Your task to perform on an android device: Add "asus zenbook" to the cart on amazon Image 0: 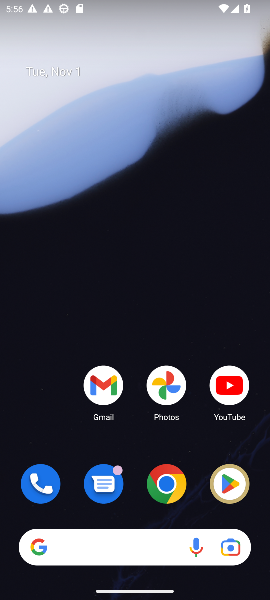
Step 0: click (170, 485)
Your task to perform on an android device: Add "asus zenbook" to the cart on amazon Image 1: 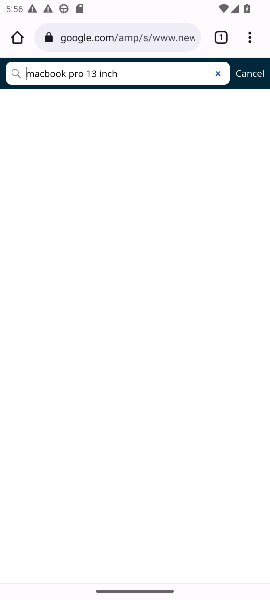
Step 1: click (126, 33)
Your task to perform on an android device: Add "asus zenbook" to the cart on amazon Image 2: 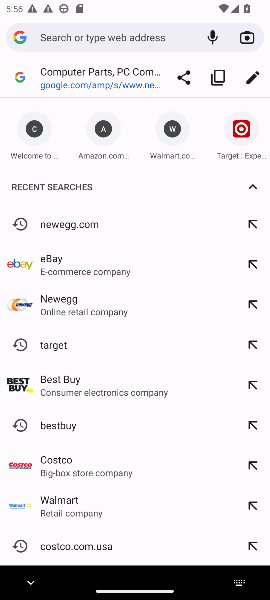
Step 2: type "amazon"
Your task to perform on an android device: Add "asus zenbook" to the cart on amazon Image 3: 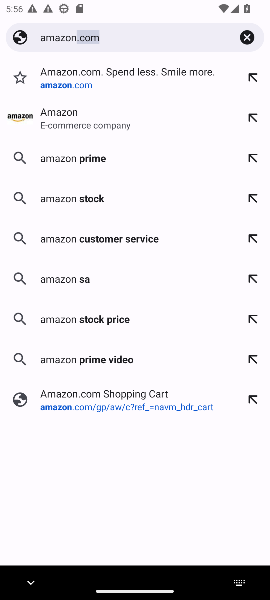
Step 3: click (88, 80)
Your task to perform on an android device: Add "asus zenbook" to the cart on amazon Image 4: 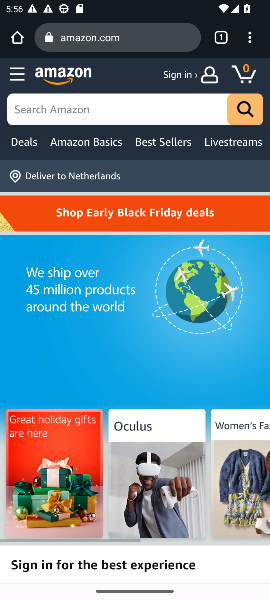
Step 4: click (98, 108)
Your task to perform on an android device: Add "asus zenbook" to the cart on amazon Image 5: 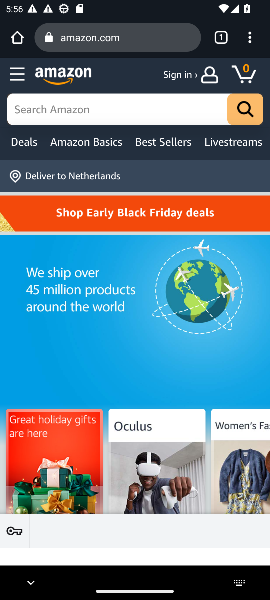
Step 5: click (135, 101)
Your task to perform on an android device: Add "asus zenbook" to the cart on amazon Image 6: 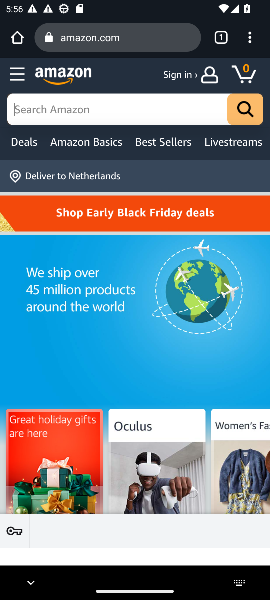
Step 6: type "asus zenbook"
Your task to perform on an android device: Add "asus zenbook" to the cart on amazon Image 7: 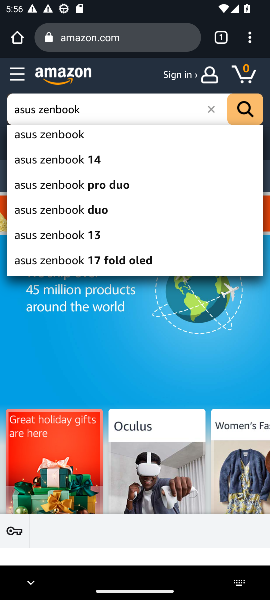
Step 7: click (50, 133)
Your task to perform on an android device: Add "asus zenbook" to the cart on amazon Image 8: 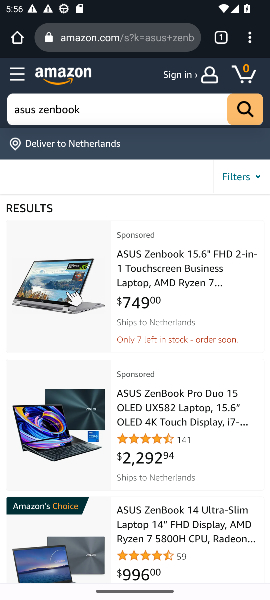
Step 8: click (183, 264)
Your task to perform on an android device: Add "asus zenbook" to the cart on amazon Image 9: 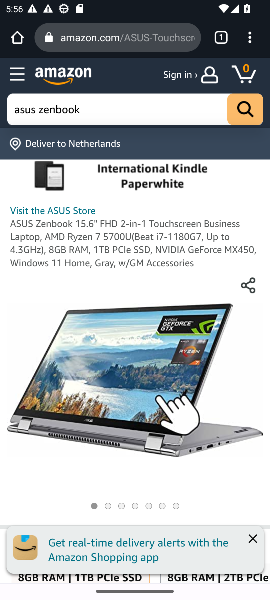
Step 9: drag from (187, 482) to (171, 323)
Your task to perform on an android device: Add "asus zenbook" to the cart on amazon Image 10: 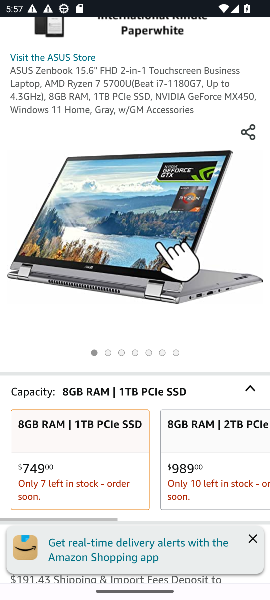
Step 10: drag from (184, 493) to (170, 248)
Your task to perform on an android device: Add "asus zenbook" to the cart on amazon Image 11: 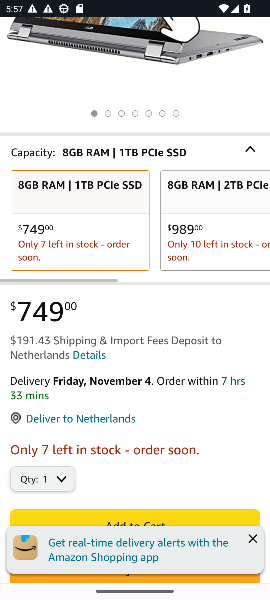
Step 11: drag from (140, 512) to (154, 365)
Your task to perform on an android device: Add "asus zenbook" to the cart on amazon Image 12: 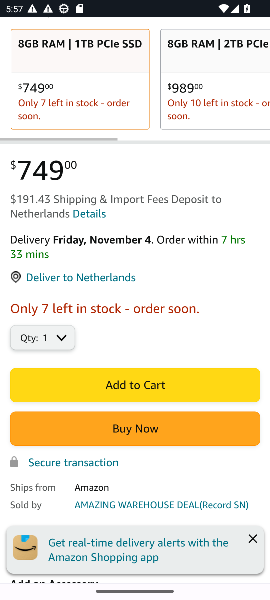
Step 12: click (149, 385)
Your task to perform on an android device: Add "asus zenbook" to the cart on amazon Image 13: 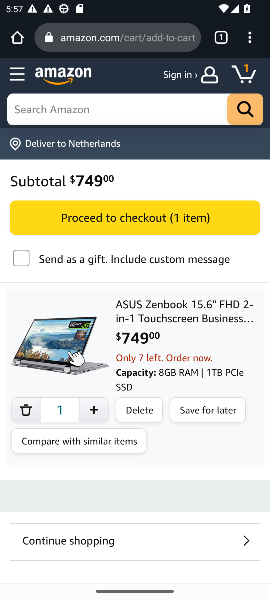
Step 13: task complete